Your task to perform on an android device: create a new album in the google photos Image 0: 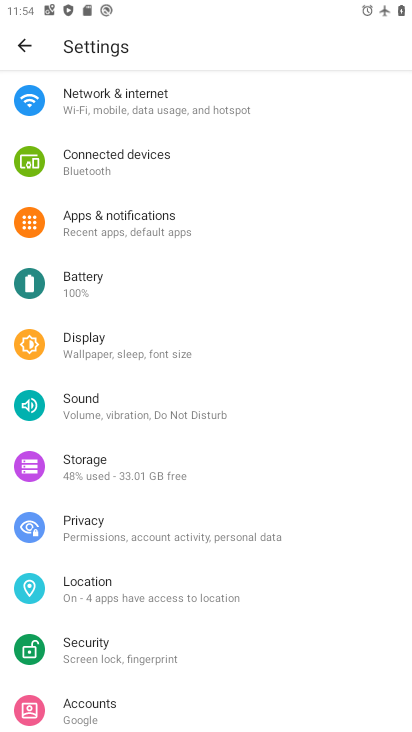
Step 0: press home button
Your task to perform on an android device: create a new album in the google photos Image 1: 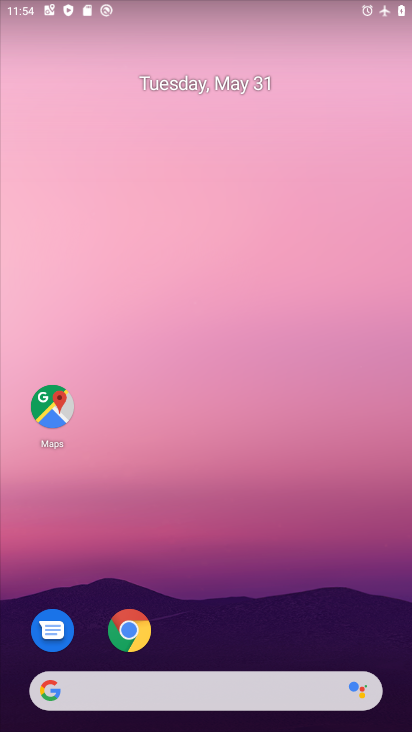
Step 1: drag from (103, 720) to (147, 28)
Your task to perform on an android device: create a new album in the google photos Image 2: 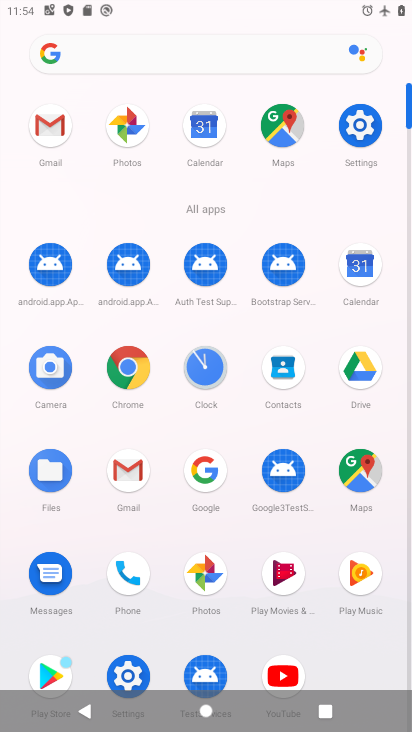
Step 2: click (208, 572)
Your task to perform on an android device: create a new album in the google photos Image 3: 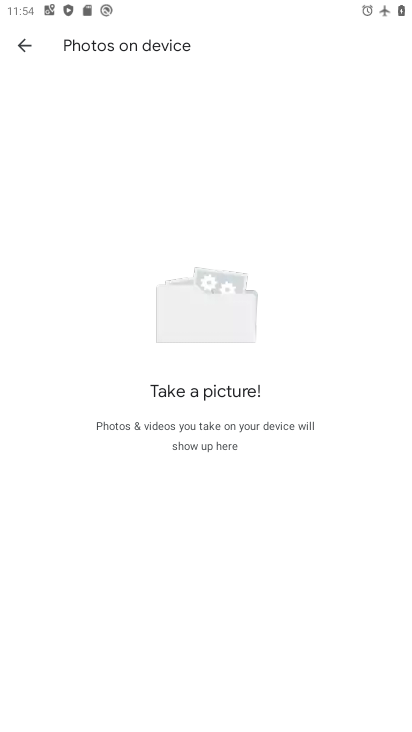
Step 3: click (23, 53)
Your task to perform on an android device: create a new album in the google photos Image 4: 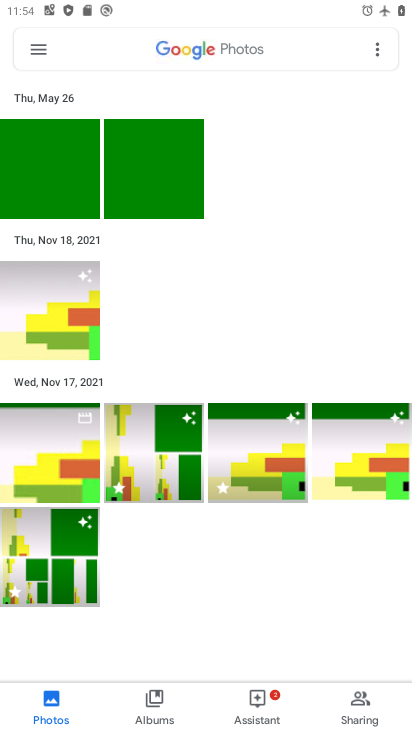
Step 4: click (31, 52)
Your task to perform on an android device: create a new album in the google photos Image 5: 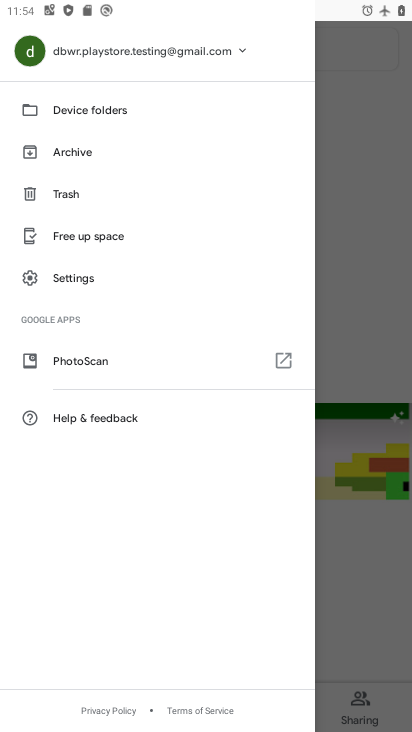
Step 5: click (375, 193)
Your task to perform on an android device: create a new album in the google photos Image 6: 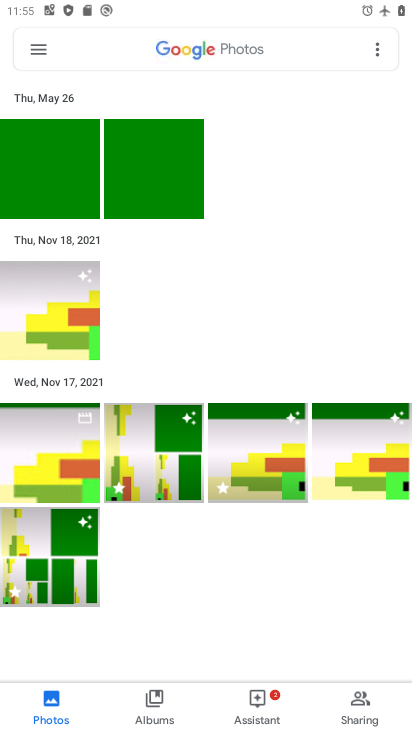
Step 6: click (146, 704)
Your task to perform on an android device: create a new album in the google photos Image 7: 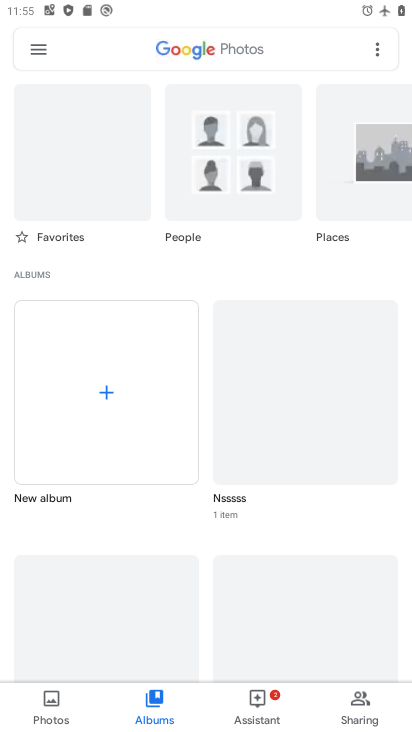
Step 7: click (105, 395)
Your task to perform on an android device: create a new album in the google photos Image 8: 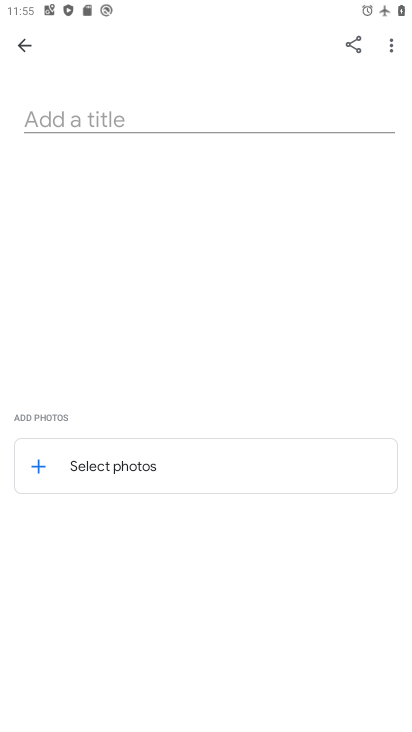
Step 8: click (151, 114)
Your task to perform on an android device: create a new album in the google photos Image 9: 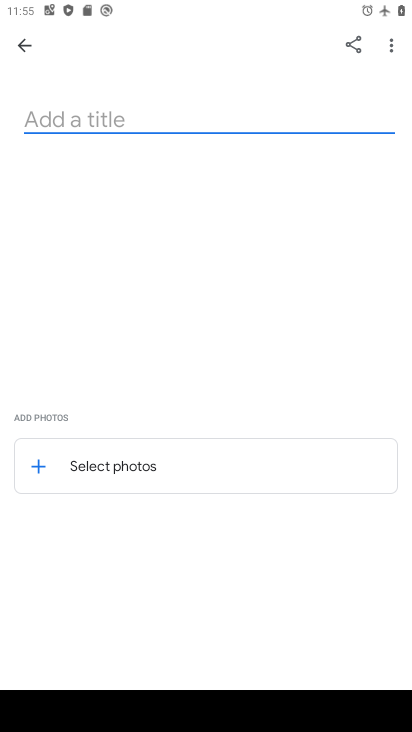
Step 9: type "yftyfj"
Your task to perform on an android device: create a new album in the google photos Image 10: 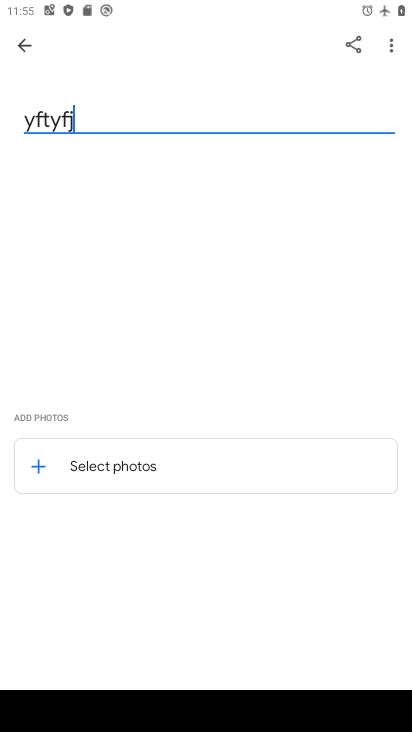
Step 10: click (100, 472)
Your task to perform on an android device: create a new album in the google photos Image 11: 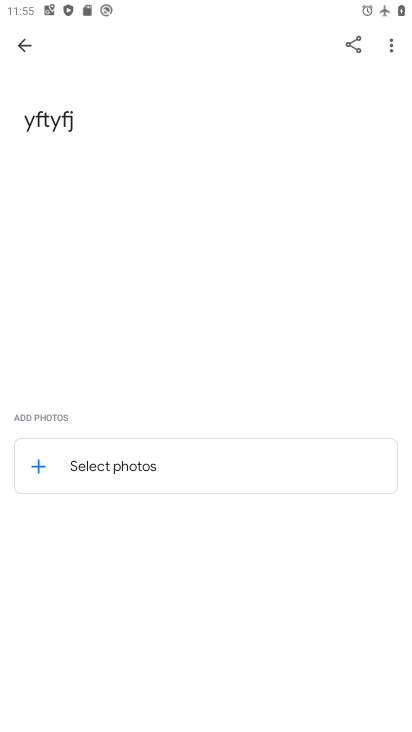
Step 11: click (40, 470)
Your task to perform on an android device: create a new album in the google photos Image 12: 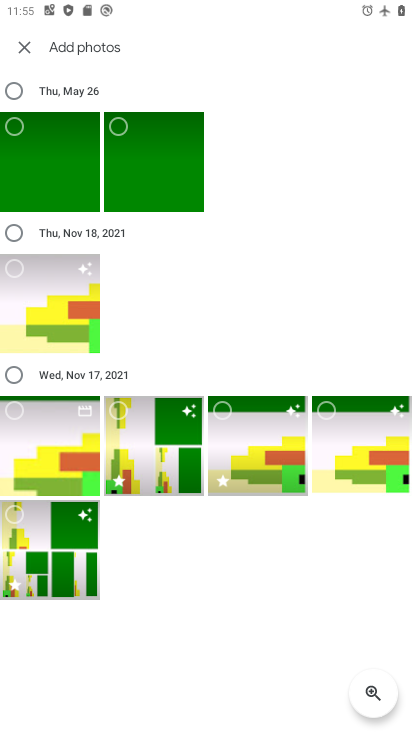
Step 12: click (57, 183)
Your task to perform on an android device: create a new album in the google photos Image 13: 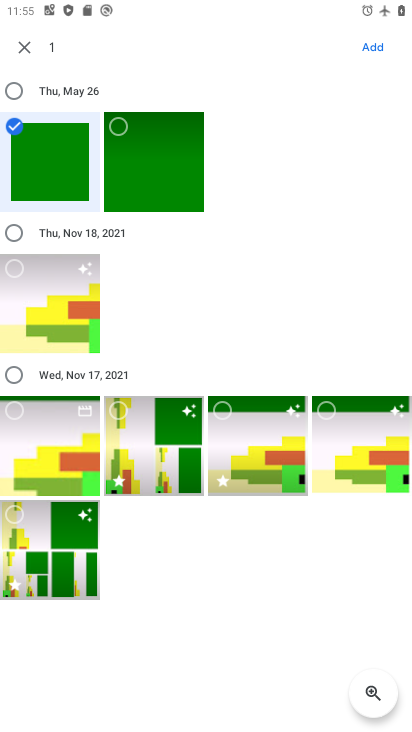
Step 13: click (123, 132)
Your task to perform on an android device: create a new album in the google photos Image 14: 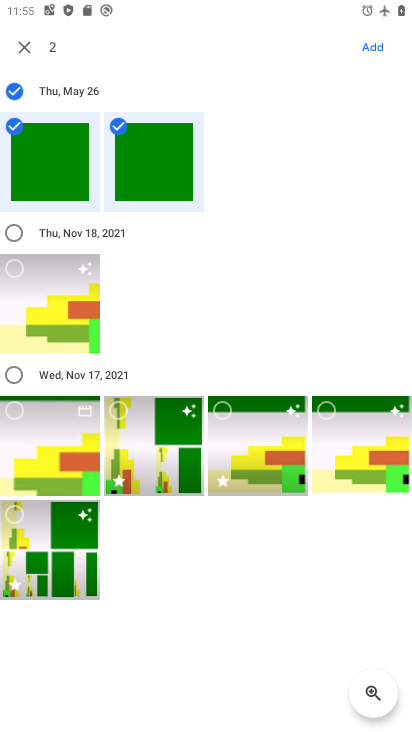
Step 14: click (383, 43)
Your task to perform on an android device: create a new album in the google photos Image 15: 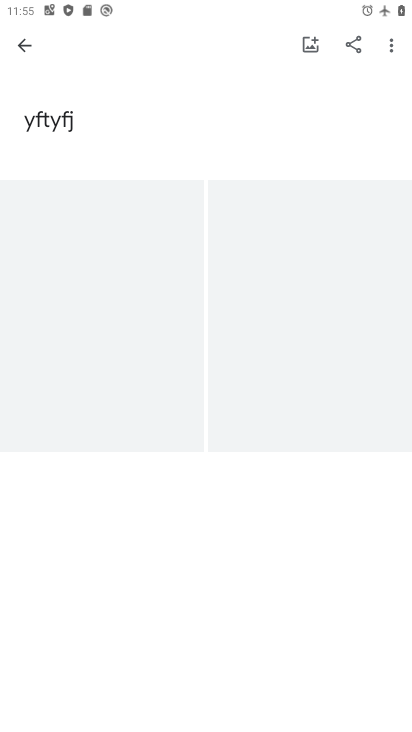
Step 15: task complete